Your task to perform on an android device: Check the weather Image 0: 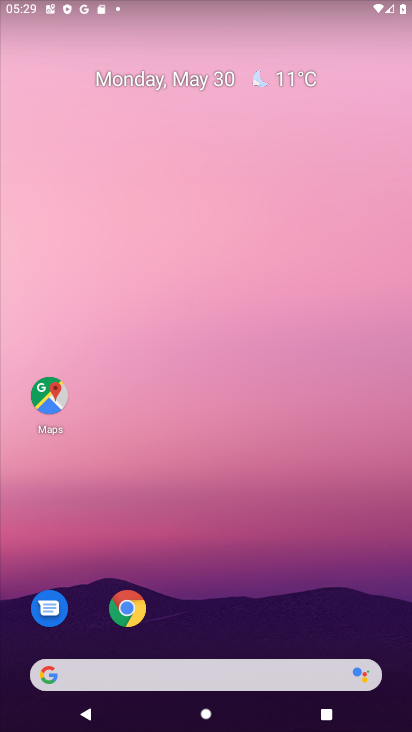
Step 0: drag from (241, 562) to (298, 0)
Your task to perform on an android device: Check the weather Image 1: 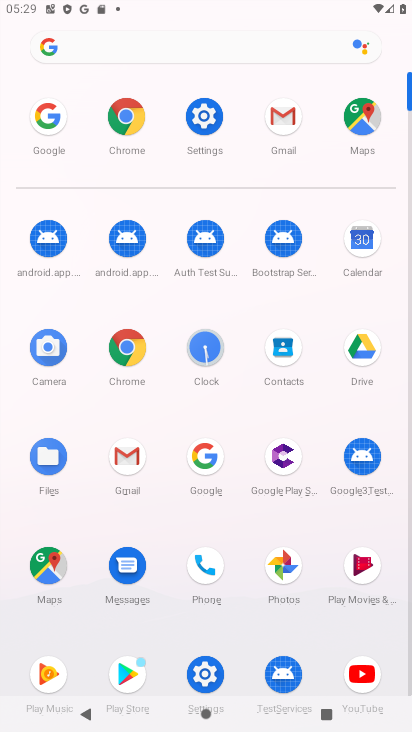
Step 1: click (51, 109)
Your task to perform on an android device: Check the weather Image 2: 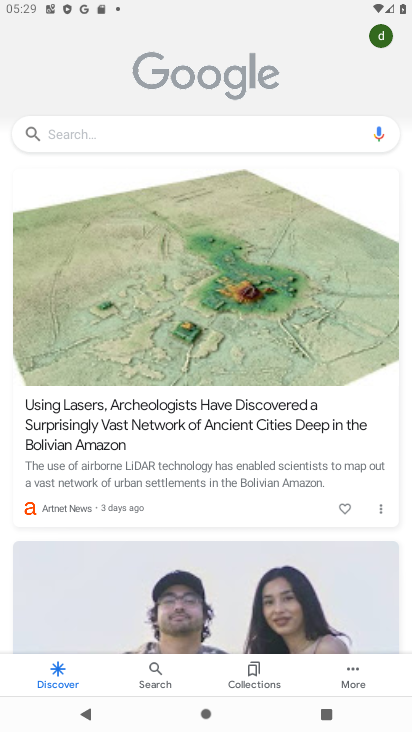
Step 2: click (107, 133)
Your task to perform on an android device: Check the weather Image 3: 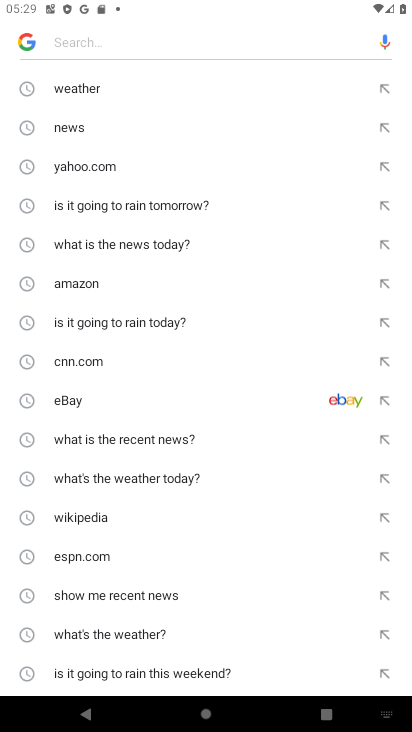
Step 3: click (92, 100)
Your task to perform on an android device: Check the weather Image 4: 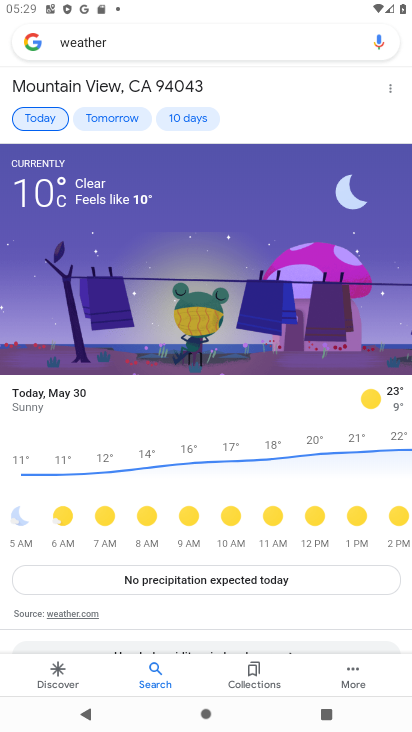
Step 4: task complete